Your task to perform on an android device: add a contact in the contacts app Image 0: 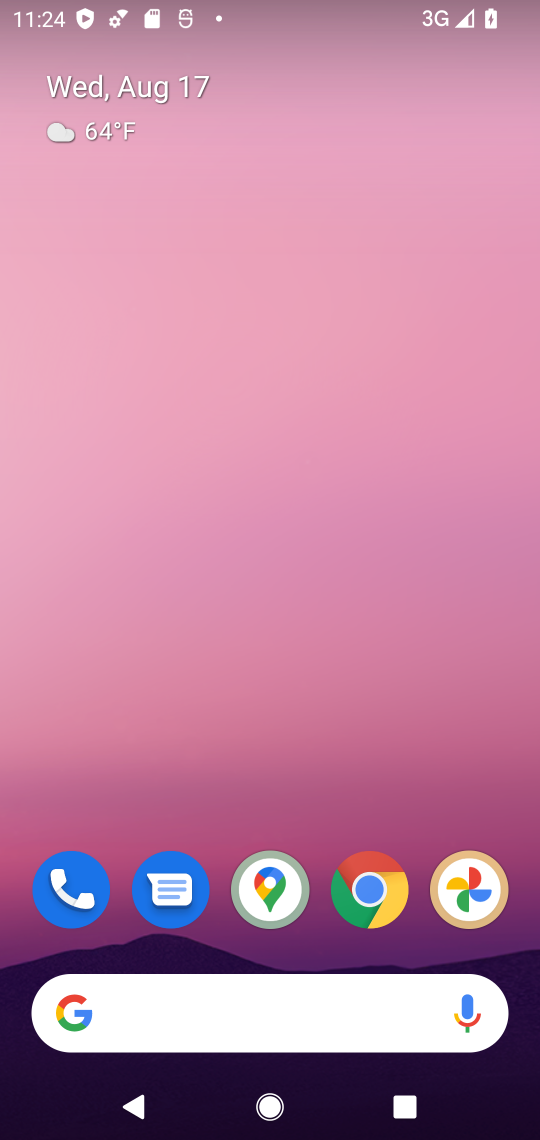
Step 0: drag from (268, 779) to (321, 0)
Your task to perform on an android device: add a contact in the contacts app Image 1: 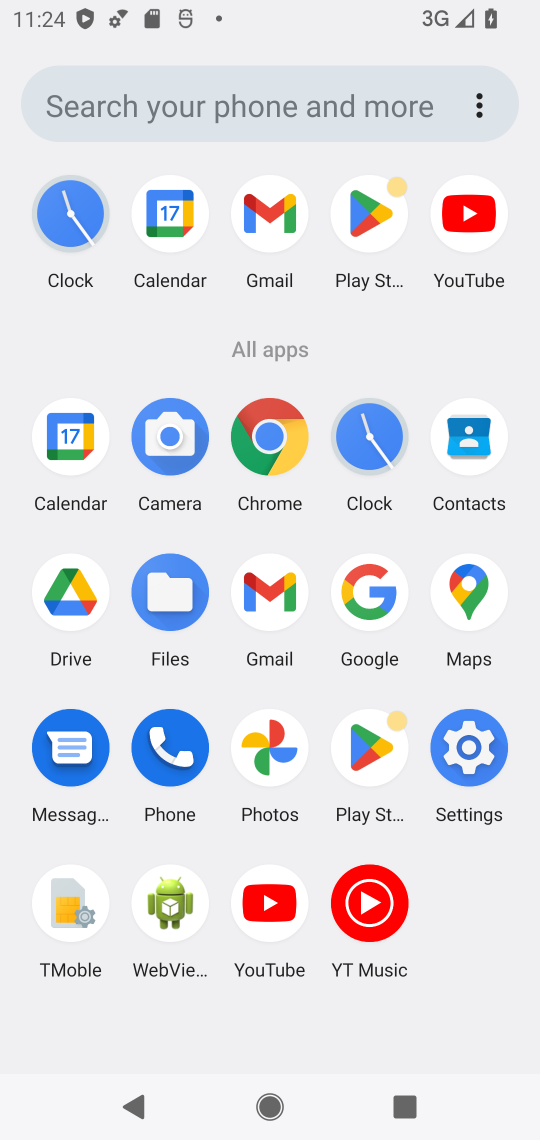
Step 1: drag from (229, 790) to (277, 272)
Your task to perform on an android device: add a contact in the contacts app Image 2: 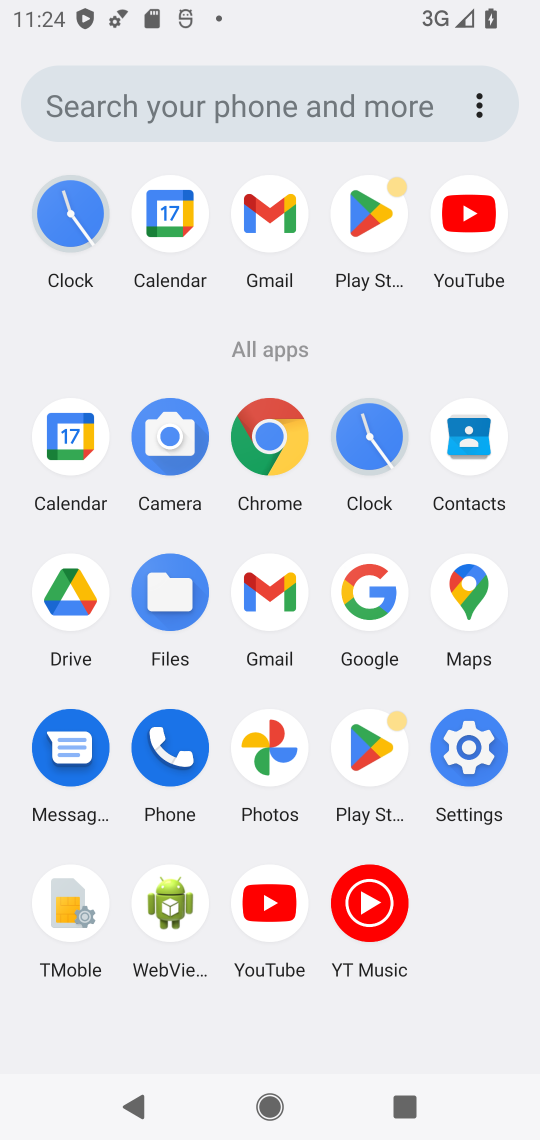
Step 2: click (469, 420)
Your task to perform on an android device: add a contact in the contacts app Image 3: 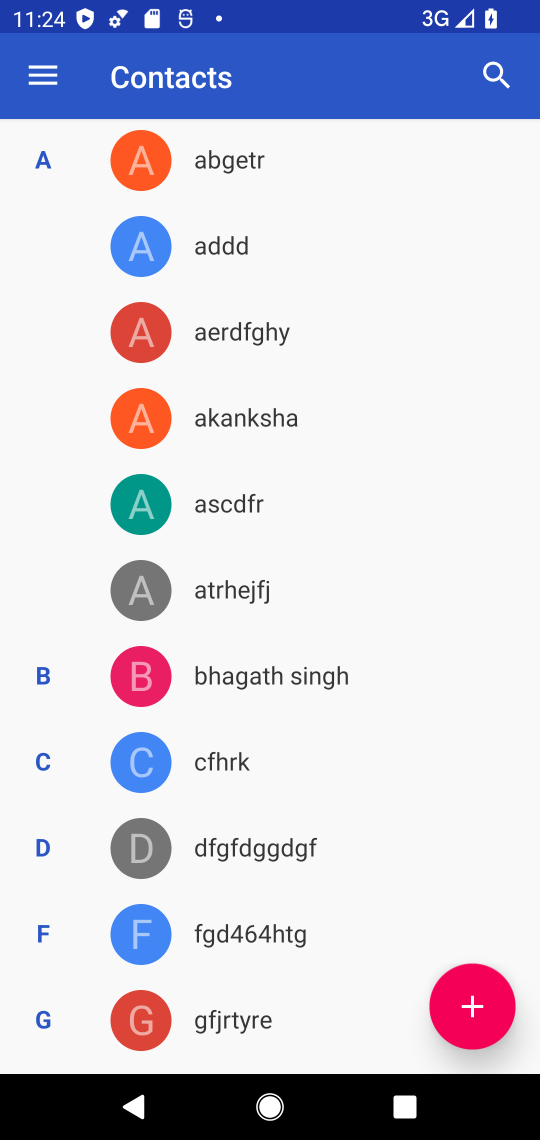
Step 3: click (486, 1011)
Your task to perform on an android device: add a contact in the contacts app Image 4: 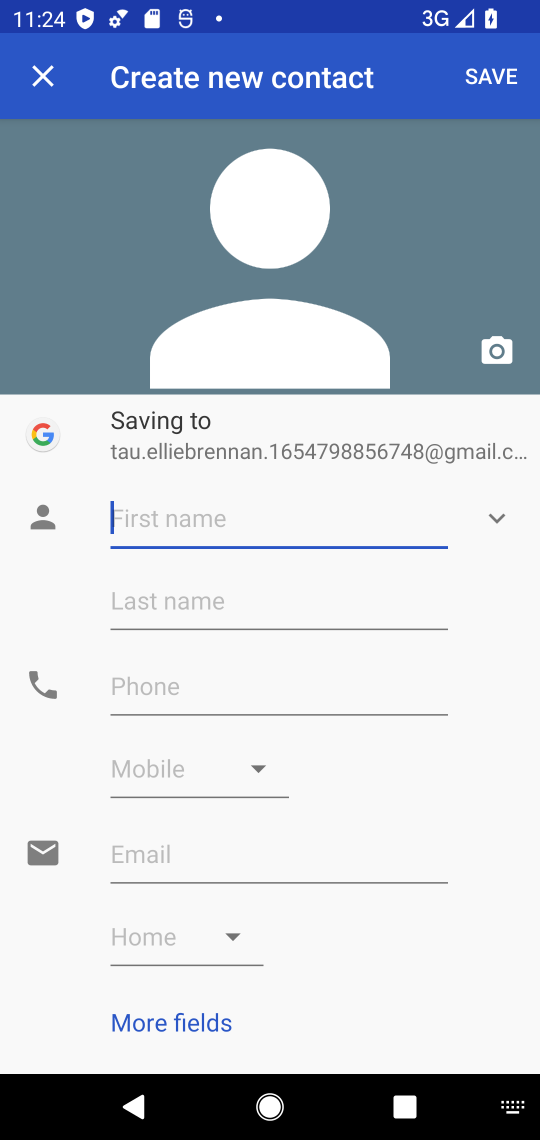
Step 4: type "Abha"
Your task to perform on an android device: add a contact in the contacts app Image 5: 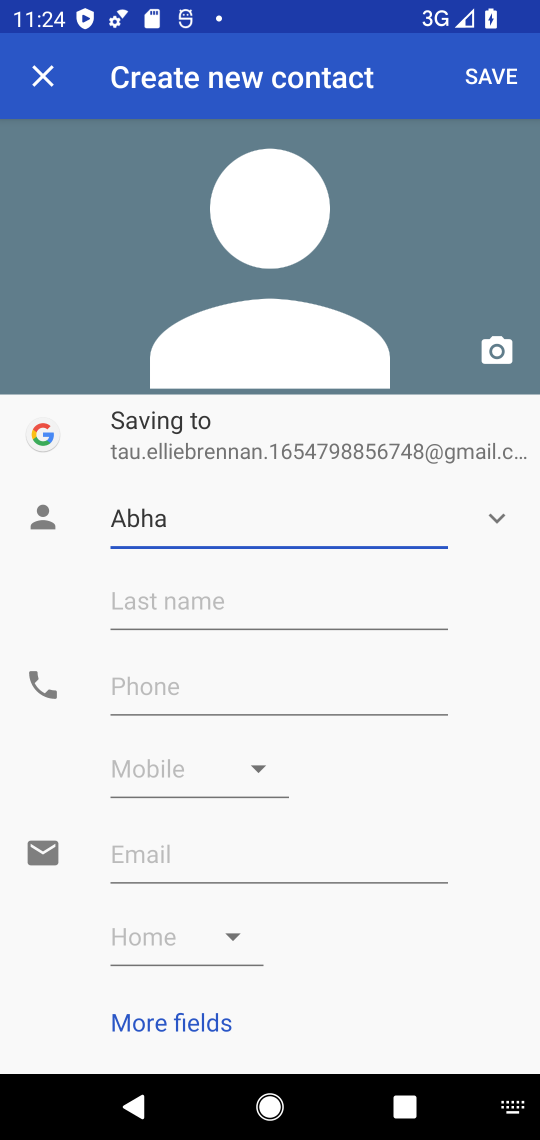
Step 5: click (191, 691)
Your task to perform on an android device: add a contact in the contacts app Image 6: 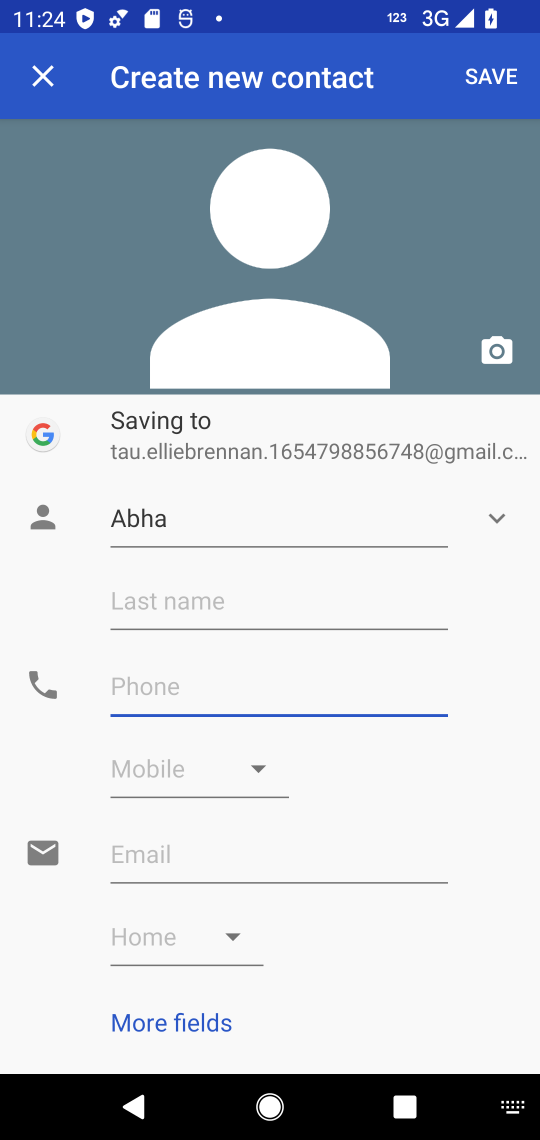
Step 6: type "+919999876543"
Your task to perform on an android device: add a contact in the contacts app Image 7: 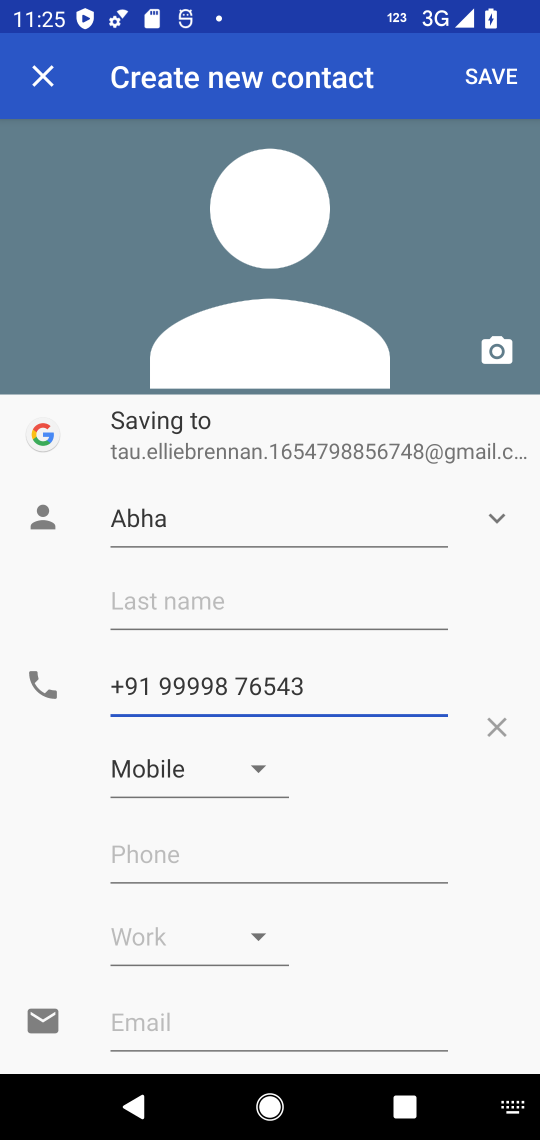
Step 7: click (504, 81)
Your task to perform on an android device: add a contact in the contacts app Image 8: 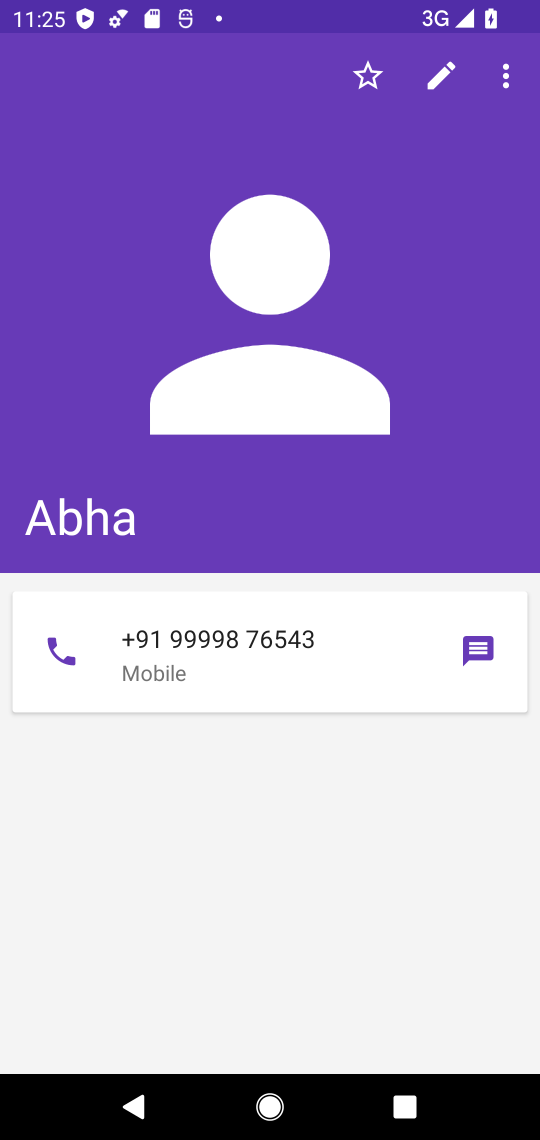
Step 8: task complete